Your task to perform on an android device: Open the map Image 0: 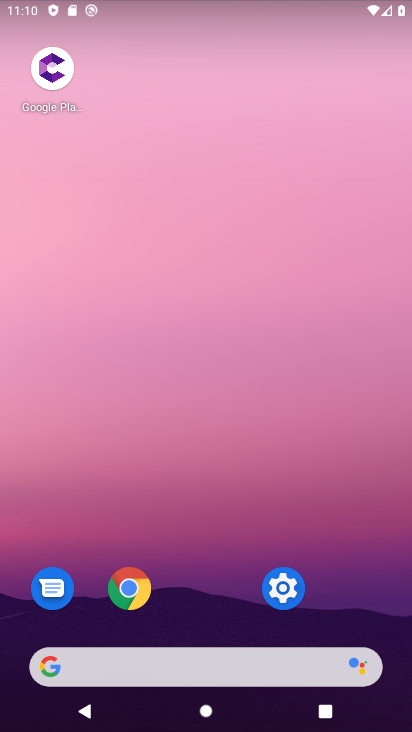
Step 0: drag from (170, 682) to (62, 75)
Your task to perform on an android device: Open the map Image 1: 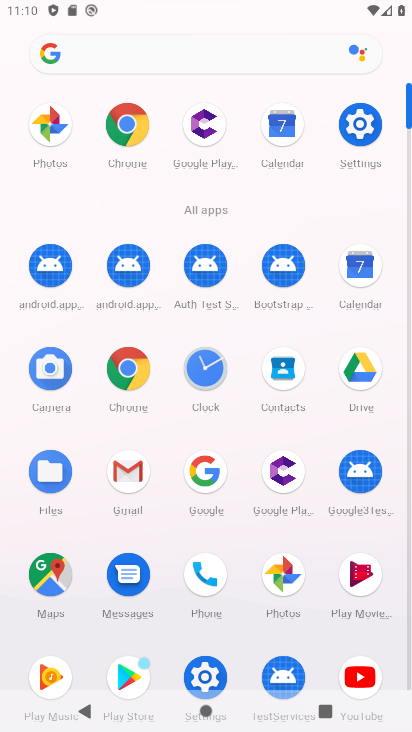
Step 1: click (45, 570)
Your task to perform on an android device: Open the map Image 2: 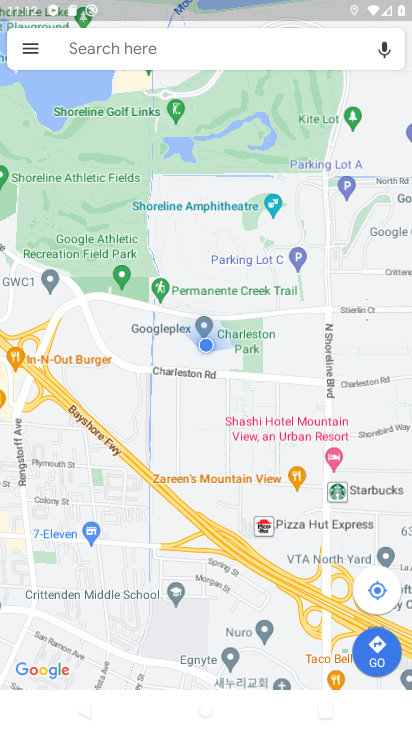
Step 2: task complete